Your task to perform on an android device: toggle airplane mode Image 0: 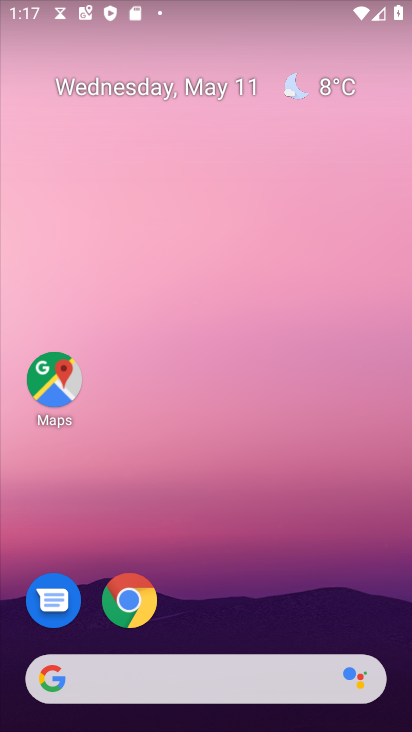
Step 0: drag from (244, 523) to (199, 85)
Your task to perform on an android device: toggle airplane mode Image 1: 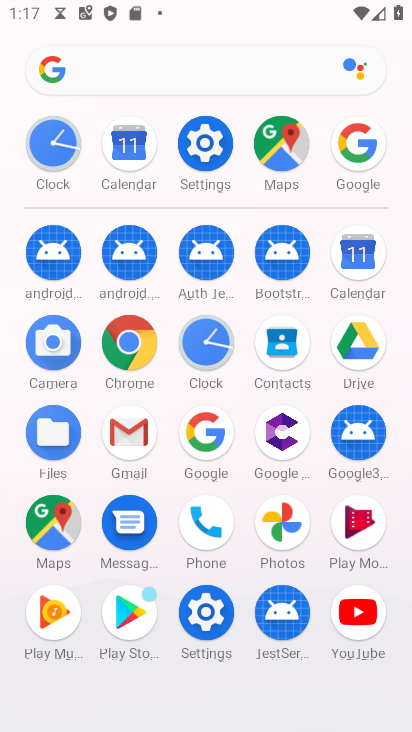
Step 1: click (210, 136)
Your task to perform on an android device: toggle airplane mode Image 2: 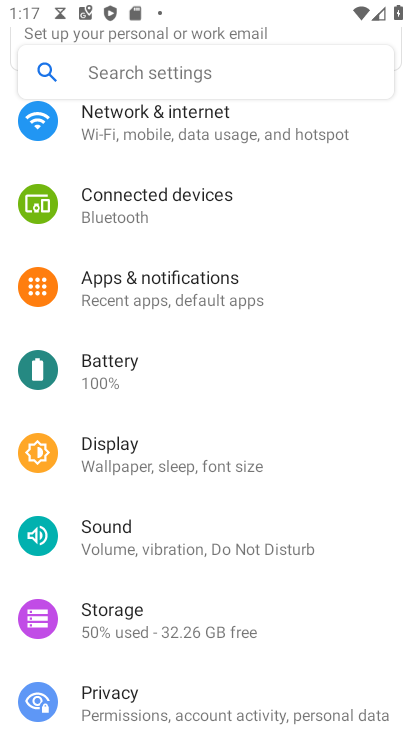
Step 2: click (203, 121)
Your task to perform on an android device: toggle airplane mode Image 3: 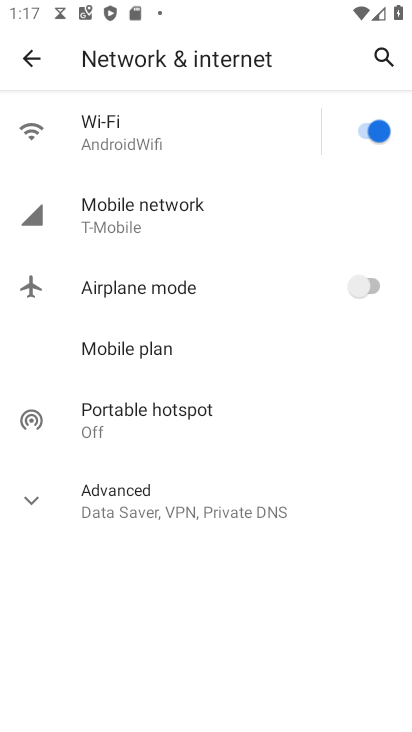
Step 3: click (364, 290)
Your task to perform on an android device: toggle airplane mode Image 4: 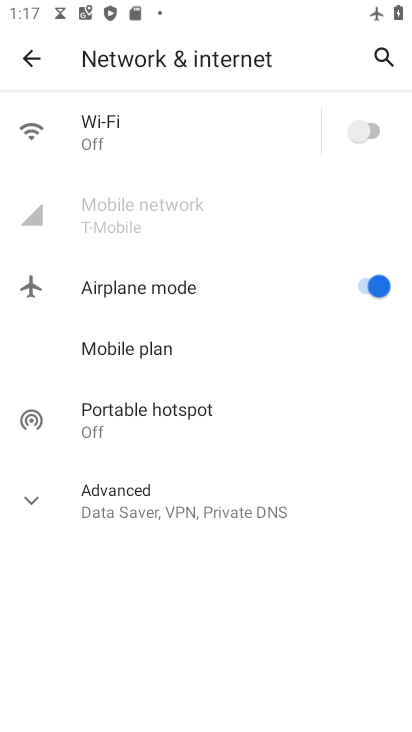
Step 4: task complete